Your task to perform on an android device: Open calendar and show me the third week of next month Image 0: 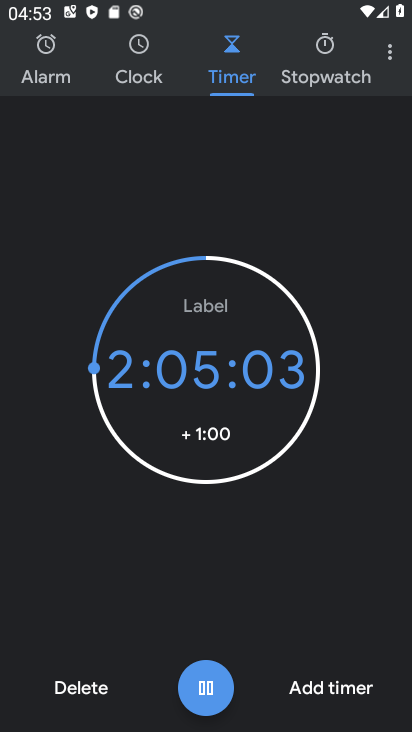
Step 0: drag from (244, 579) to (262, 283)
Your task to perform on an android device: Open calendar and show me the third week of next month Image 1: 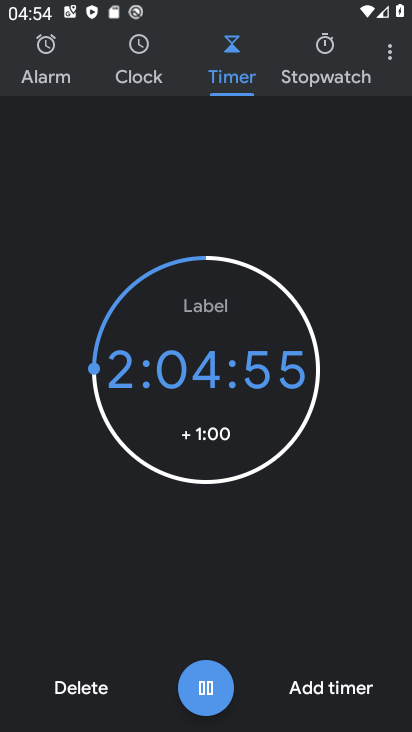
Step 1: press back button
Your task to perform on an android device: Open calendar and show me the third week of next month Image 2: 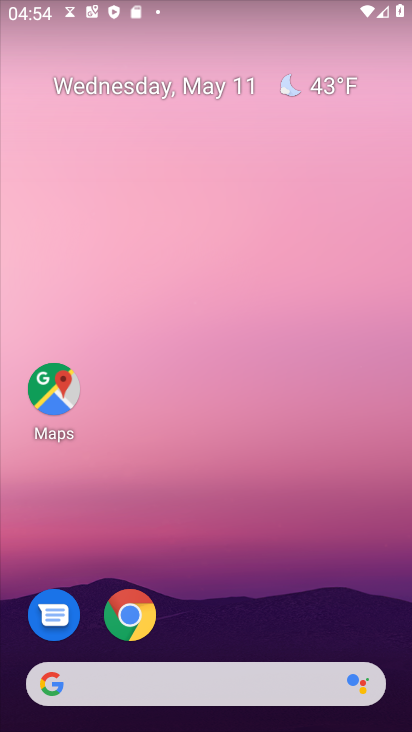
Step 2: drag from (282, 576) to (219, 48)
Your task to perform on an android device: Open calendar and show me the third week of next month Image 3: 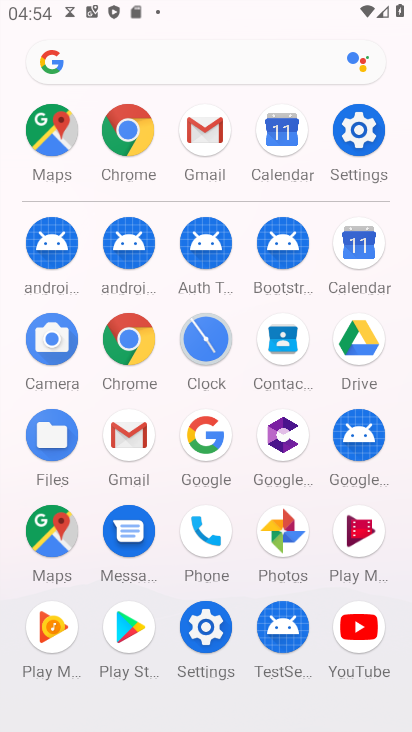
Step 3: click (360, 232)
Your task to perform on an android device: Open calendar and show me the third week of next month Image 4: 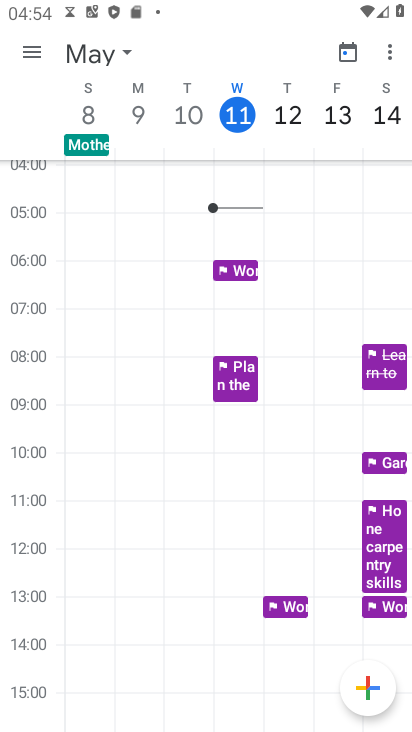
Step 4: click (90, 46)
Your task to perform on an android device: Open calendar and show me the third week of next month Image 5: 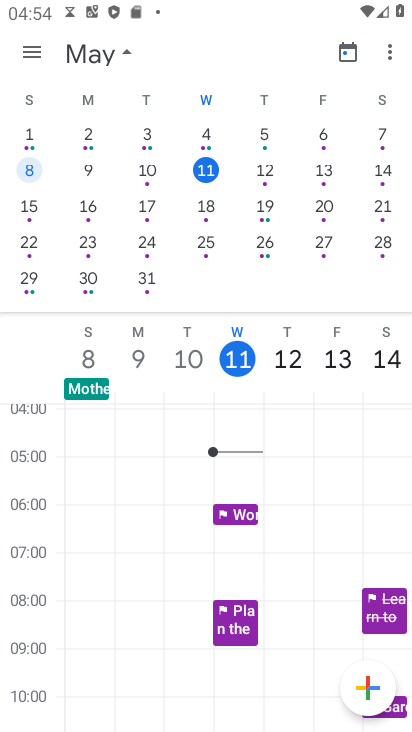
Step 5: drag from (377, 203) to (4, 168)
Your task to perform on an android device: Open calendar and show me the third week of next month Image 6: 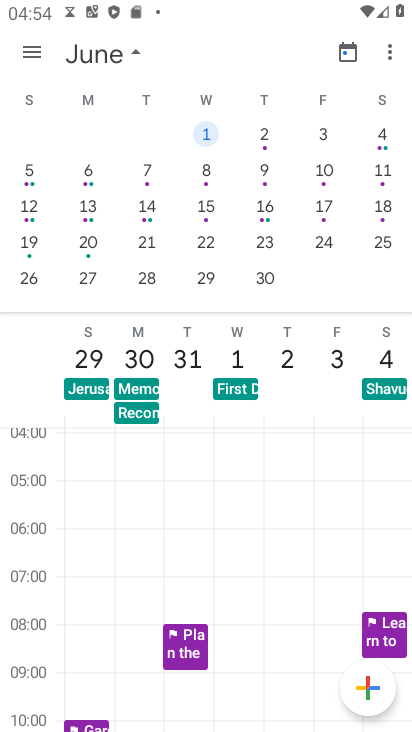
Step 6: click (22, 211)
Your task to perform on an android device: Open calendar and show me the third week of next month Image 7: 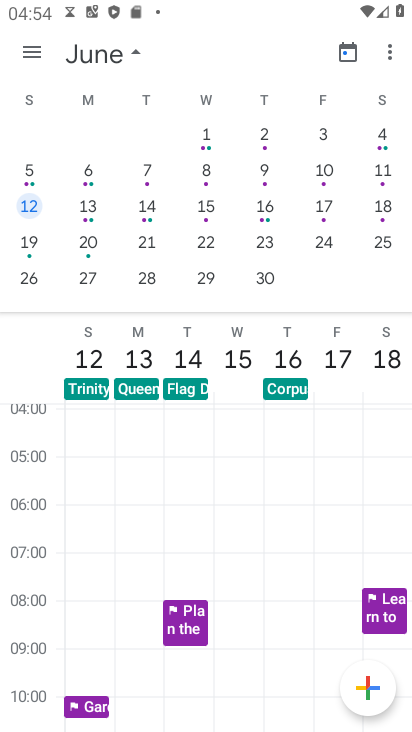
Step 7: click (36, 56)
Your task to perform on an android device: Open calendar and show me the third week of next month Image 8: 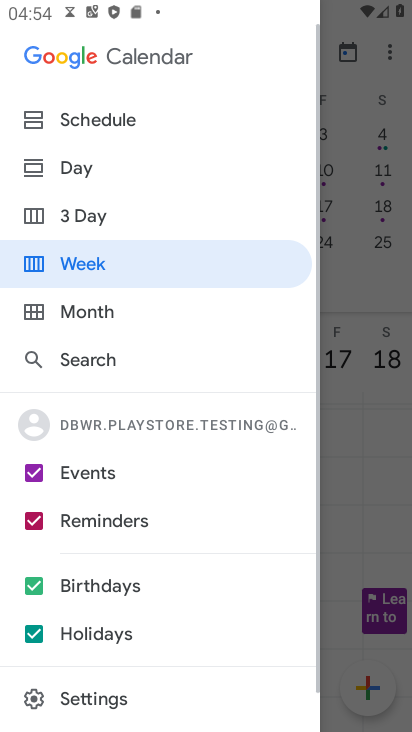
Step 8: click (108, 257)
Your task to perform on an android device: Open calendar and show me the third week of next month Image 9: 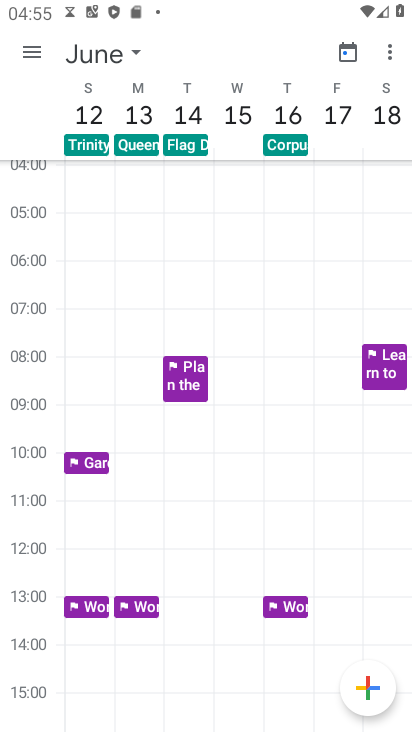
Step 9: task complete